Your task to perform on an android device: What's the top post on reddit? Image 0: 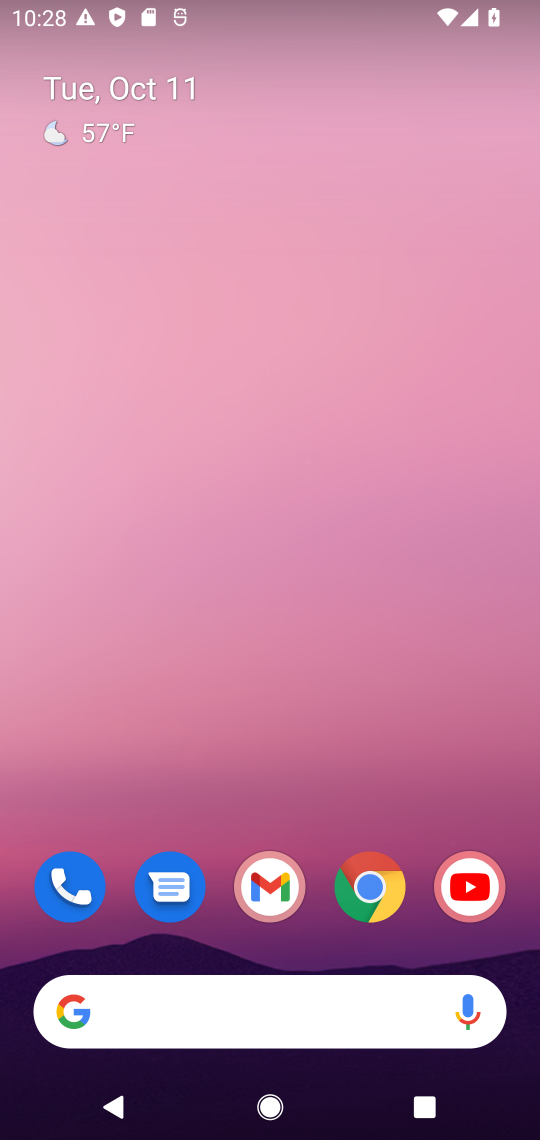
Step 0: press home button
Your task to perform on an android device: What's the top post on reddit? Image 1: 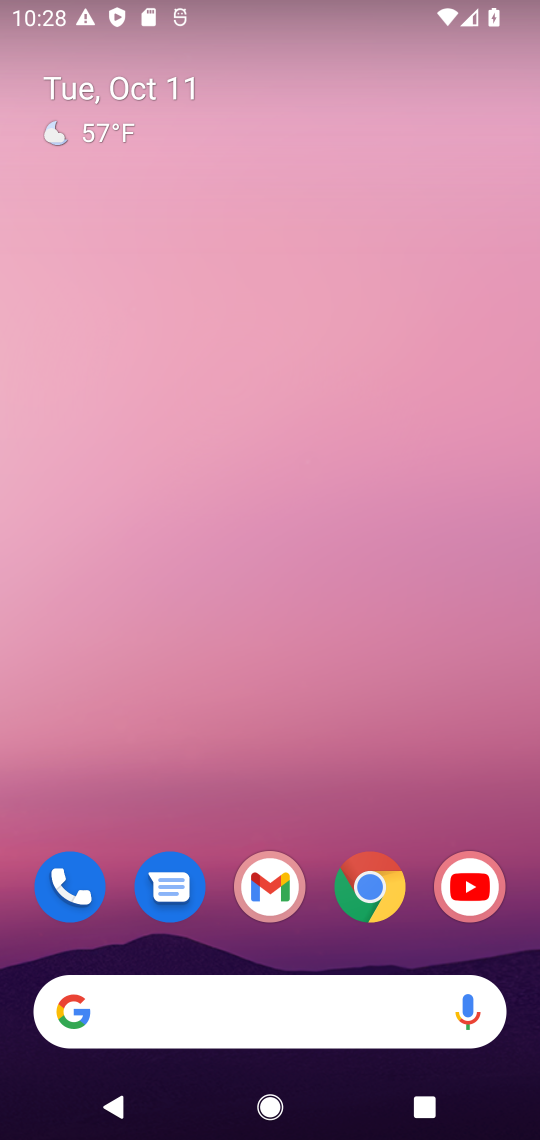
Step 1: click (253, 1008)
Your task to perform on an android device: What's the top post on reddit? Image 2: 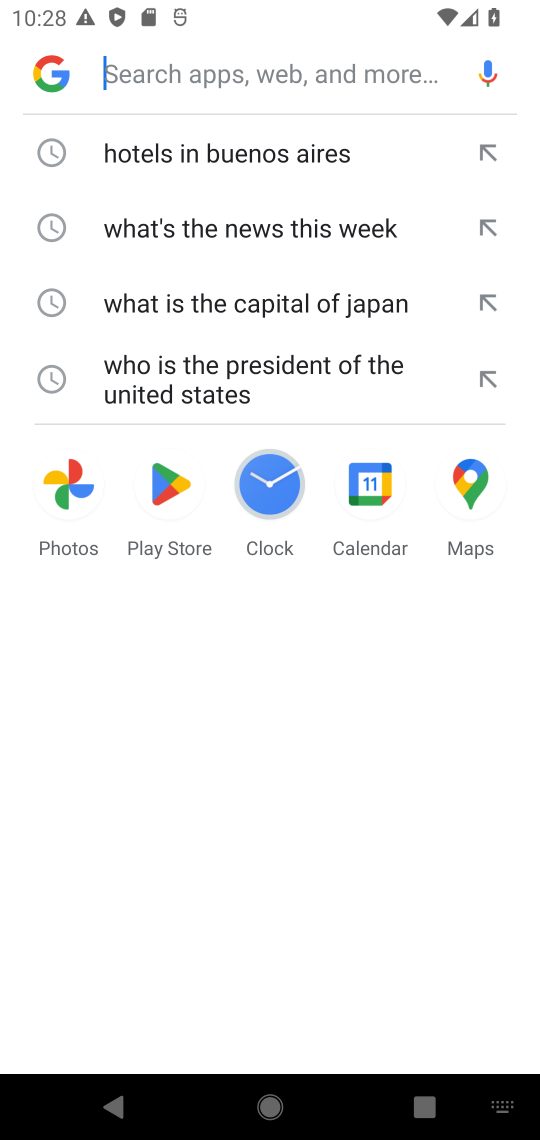
Step 2: type "What's the top post on reddit"
Your task to perform on an android device: What's the top post on reddit? Image 3: 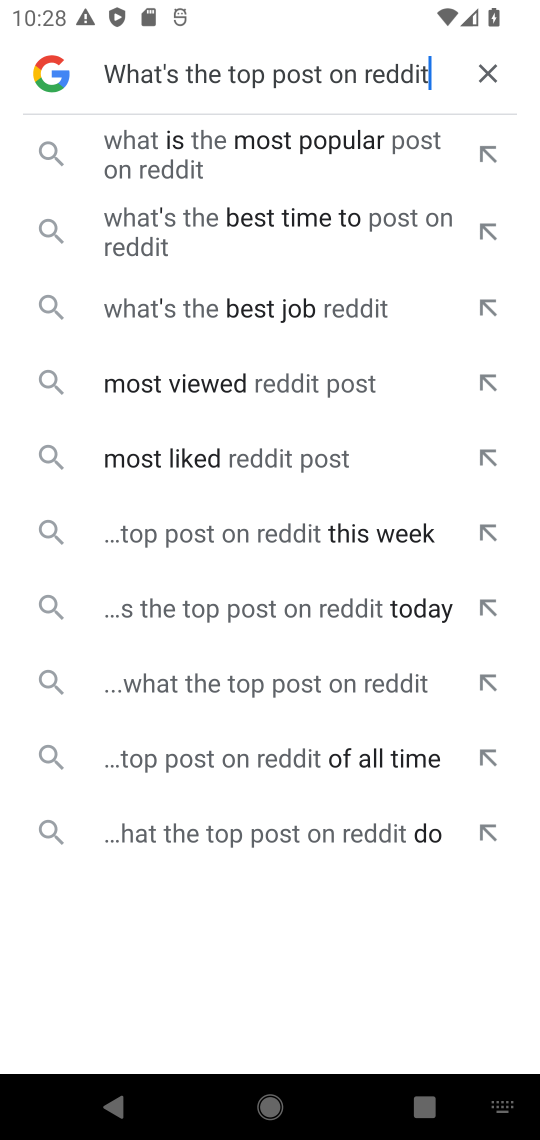
Step 3: press enter
Your task to perform on an android device: What's the top post on reddit? Image 4: 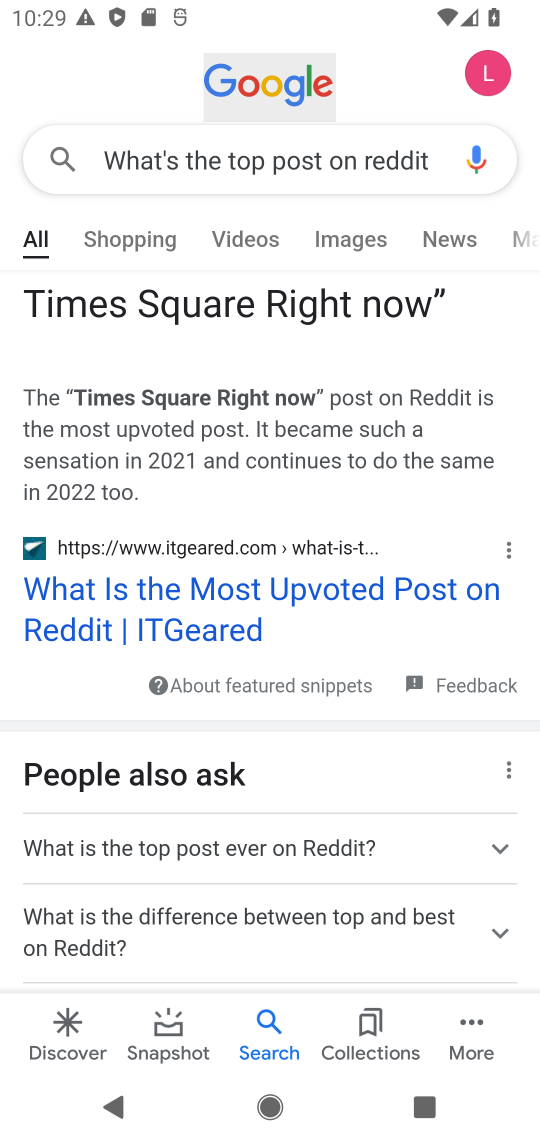
Step 4: drag from (343, 829) to (343, 596)
Your task to perform on an android device: What's the top post on reddit? Image 5: 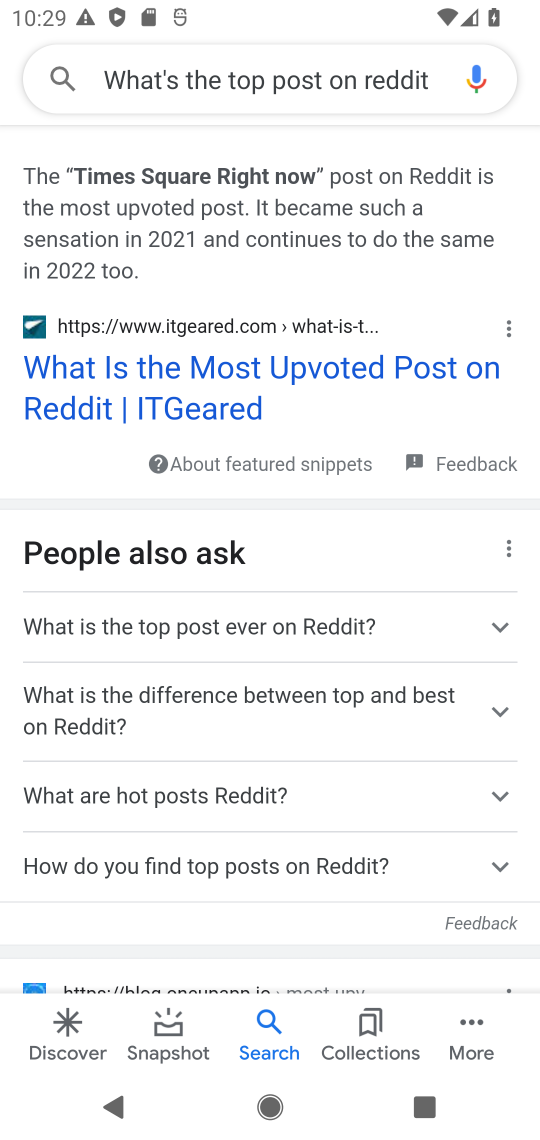
Step 5: click (263, 372)
Your task to perform on an android device: What's the top post on reddit? Image 6: 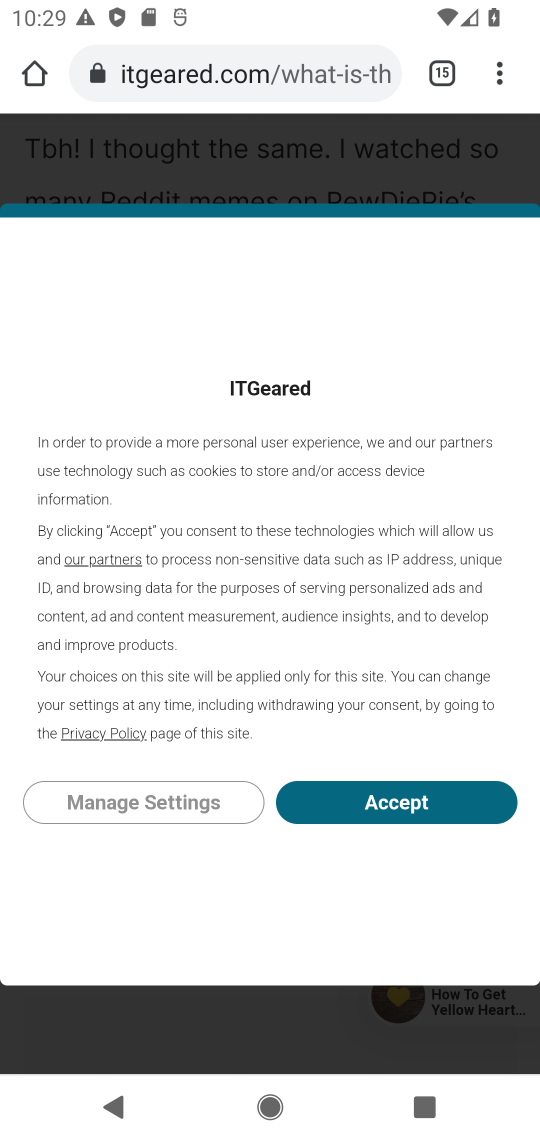
Step 6: click (398, 808)
Your task to perform on an android device: What's the top post on reddit? Image 7: 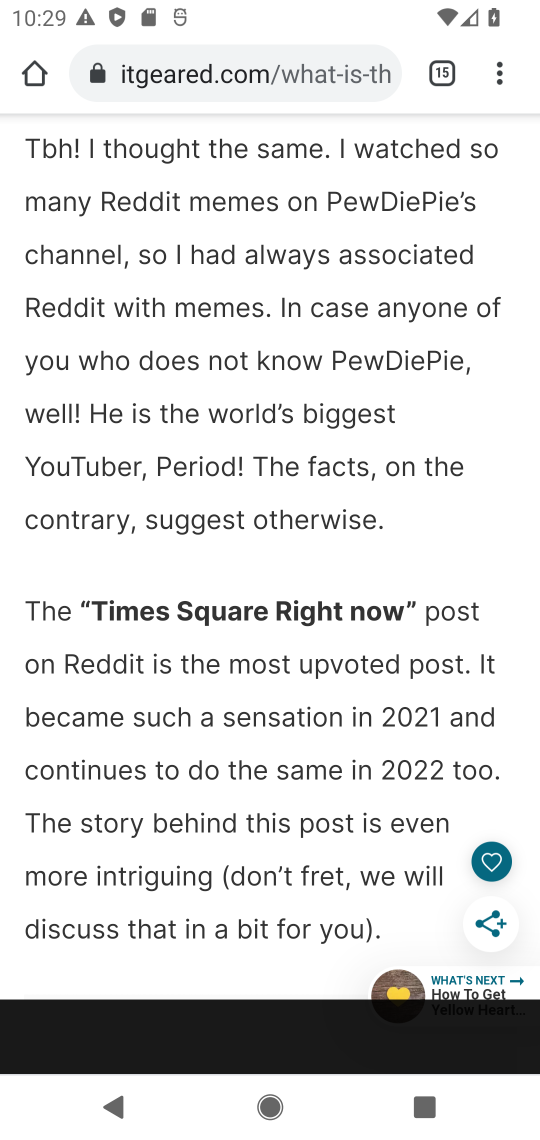
Step 7: task complete